Your task to perform on an android device: What's on my calendar today? Image 0: 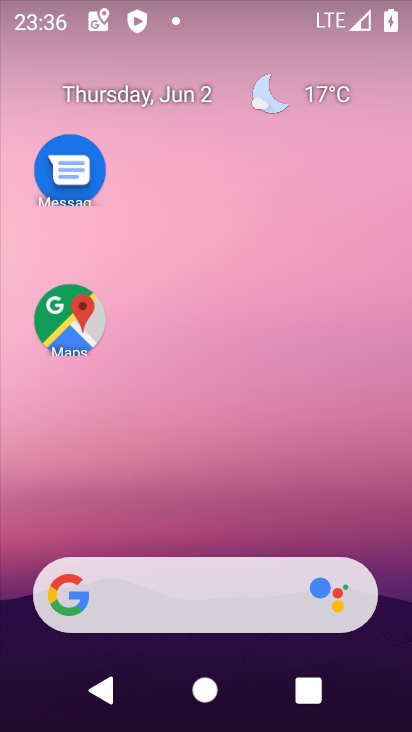
Step 0: drag from (407, 645) to (246, 156)
Your task to perform on an android device: What's on my calendar today? Image 1: 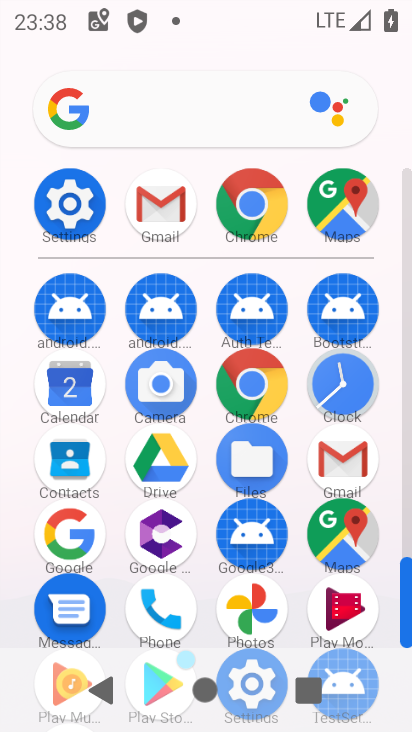
Step 1: click (54, 380)
Your task to perform on an android device: What's on my calendar today? Image 2: 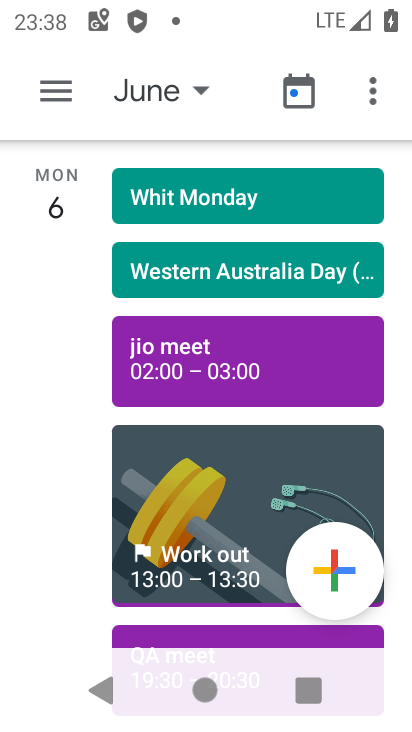
Step 2: click (191, 94)
Your task to perform on an android device: What's on my calendar today? Image 3: 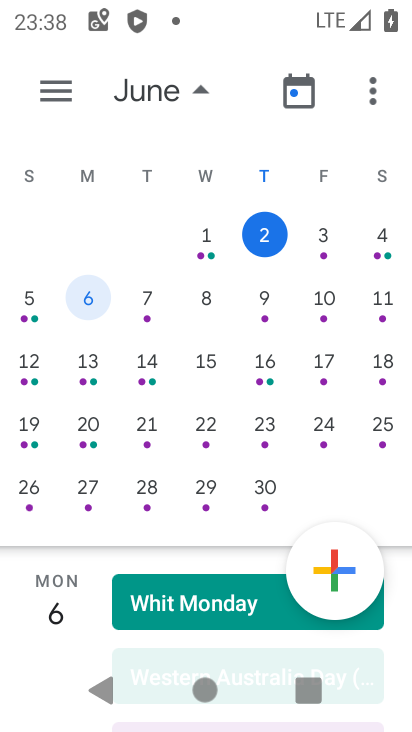
Step 3: click (329, 231)
Your task to perform on an android device: What's on my calendar today? Image 4: 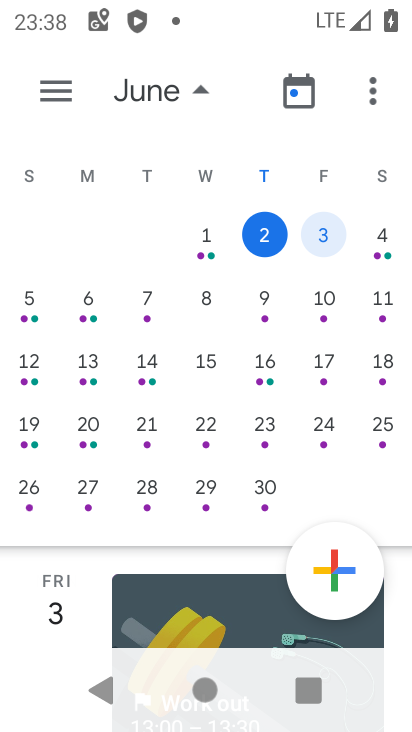
Step 4: click (211, 86)
Your task to perform on an android device: What's on my calendar today? Image 5: 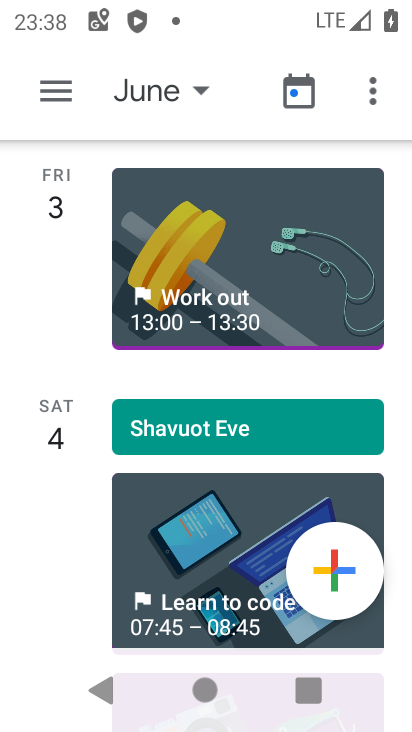
Step 5: task complete